Your task to perform on an android device: open a bookmark in the chrome app Image 0: 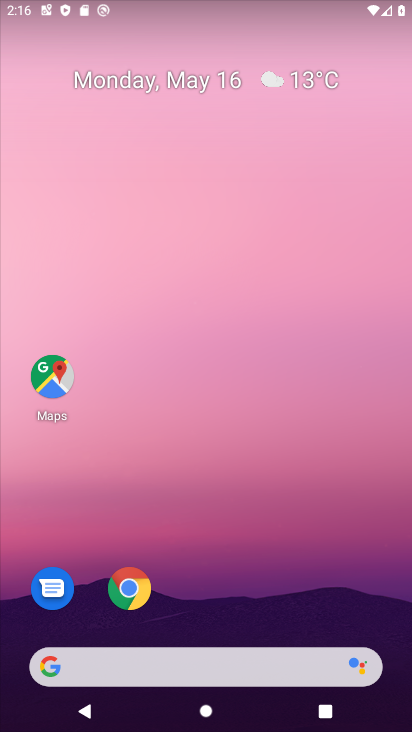
Step 0: drag from (326, 666) to (319, 4)
Your task to perform on an android device: open a bookmark in the chrome app Image 1: 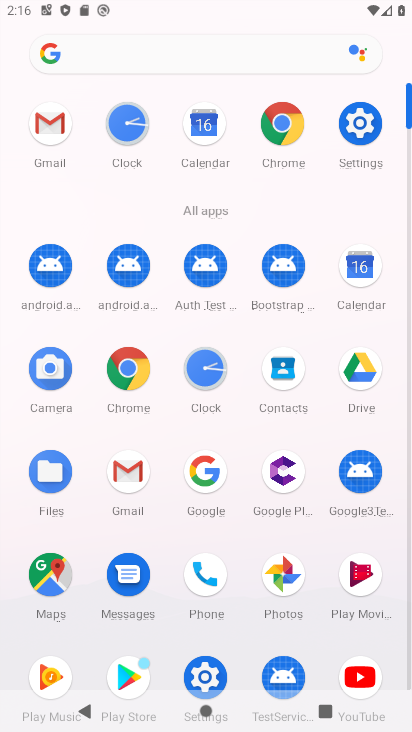
Step 1: click (125, 380)
Your task to perform on an android device: open a bookmark in the chrome app Image 2: 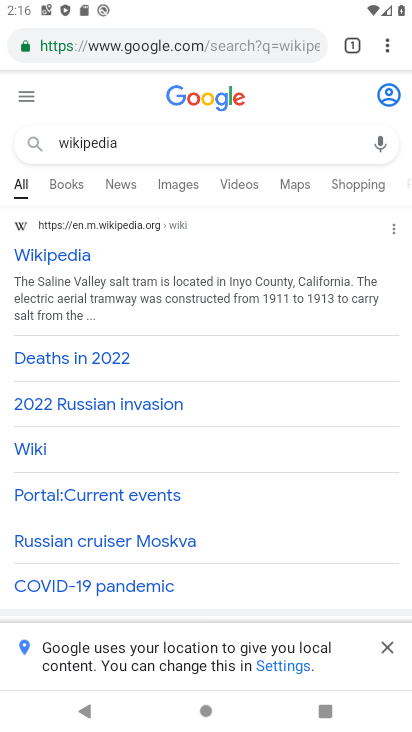
Step 2: task complete